Your task to perform on an android device: Open my contact list Image 0: 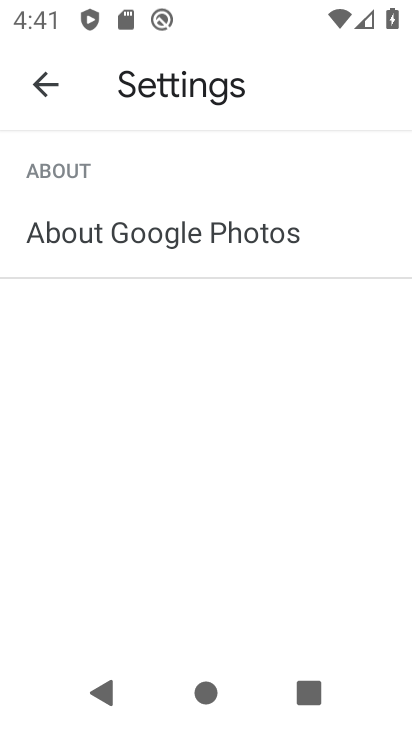
Step 0: press back button
Your task to perform on an android device: Open my contact list Image 1: 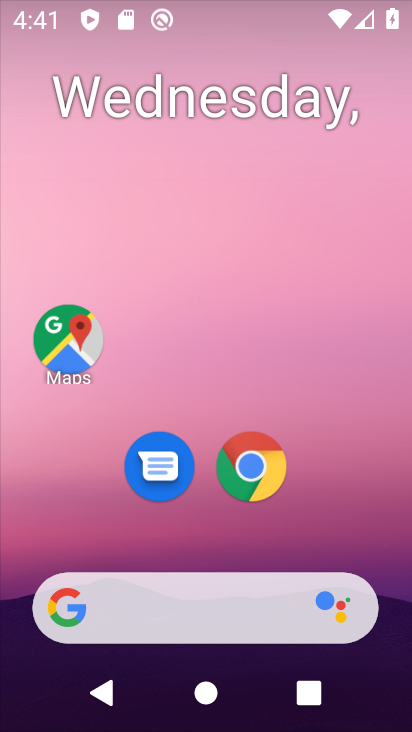
Step 1: drag from (333, 535) to (241, 17)
Your task to perform on an android device: Open my contact list Image 2: 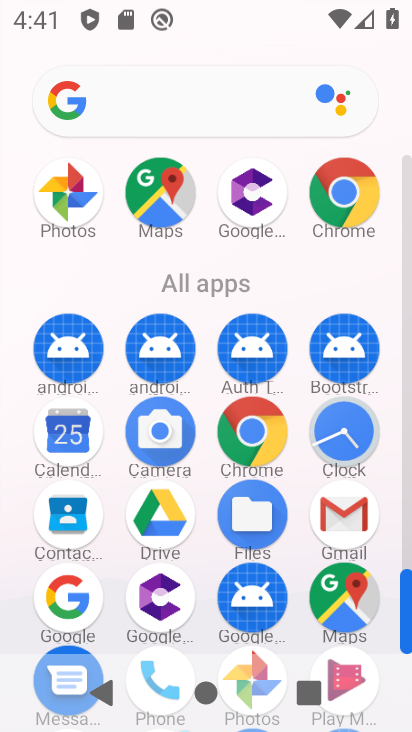
Step 2: drag from (16, 574) to (12, 240)
Your task to perform on an android device: Open my contact list Image 3: 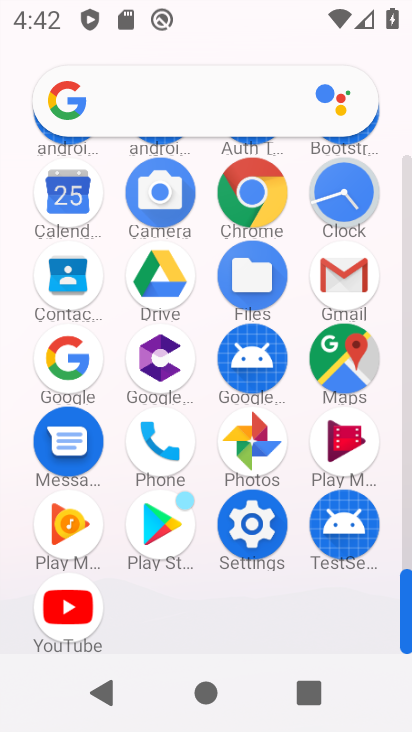
Step 3: click (64, 271)
Your task to perform on an android device: Open my contact list Image 4: 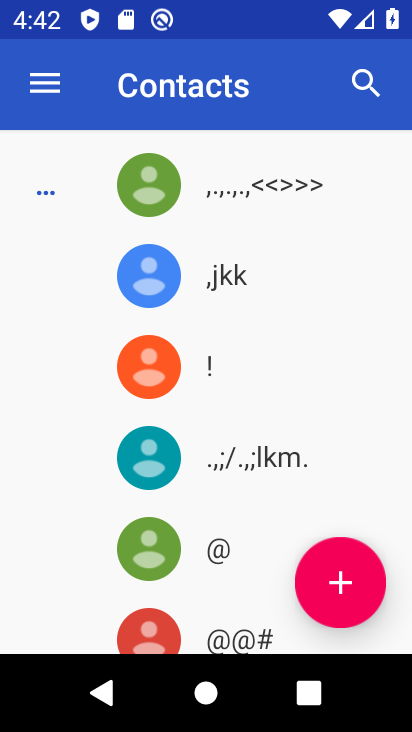
Step 4: task complete